Your task to perform on an android device: Open settings on Google Maps Image 0: 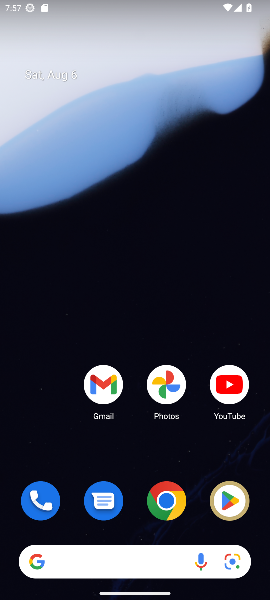
Step 0: drag from (33, 577) to (255, 216)
Your task to perform on an android device: Open settings on Google Maps Image 1: 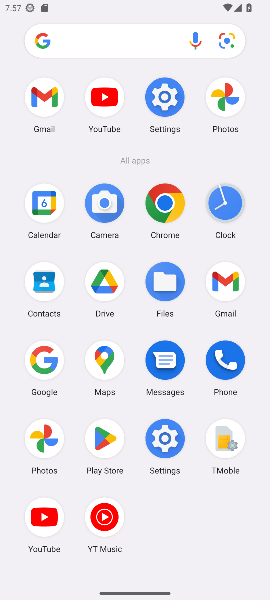
Step 1: click (93, 350)
Your task to perform on an android device: Open settings on Google Maps Image 2: 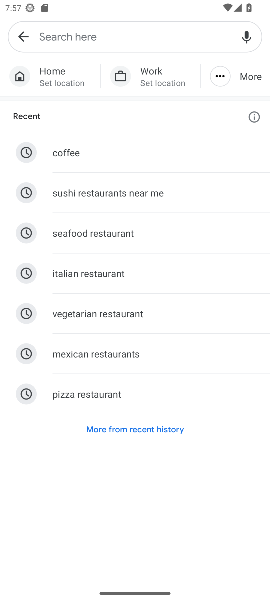
Step 2: click (26, 34)
Your task to perform on an android device: Open settings on Google Maps Image 3: 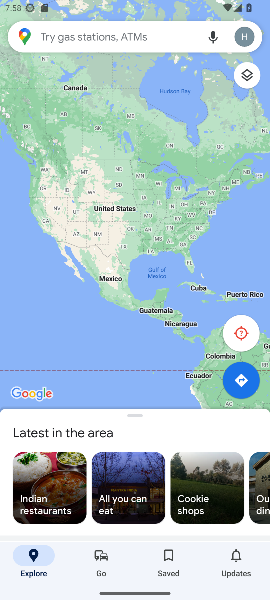
Step 3: click (58, 30)
Your task to perform on an android device: Open settings on Google Maps Image 4: 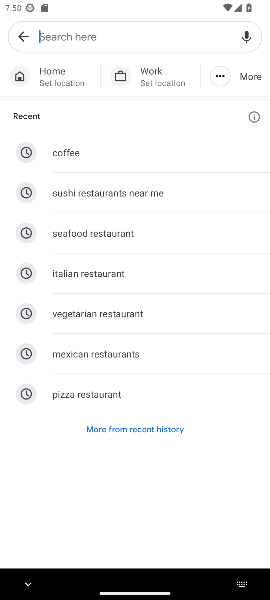
Step 4: click (53, 62)
Your task to perform on an android device: Open settings on Google Maps Image 5: 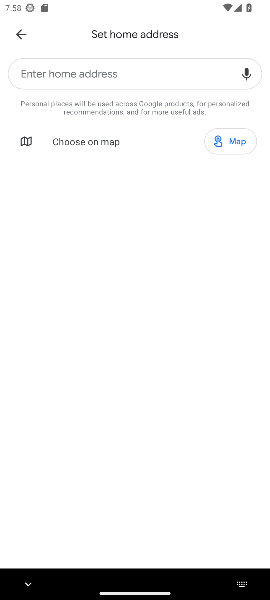
Step 5: task complete